Your task to perform on an android device: Open privacy settings Image 0: 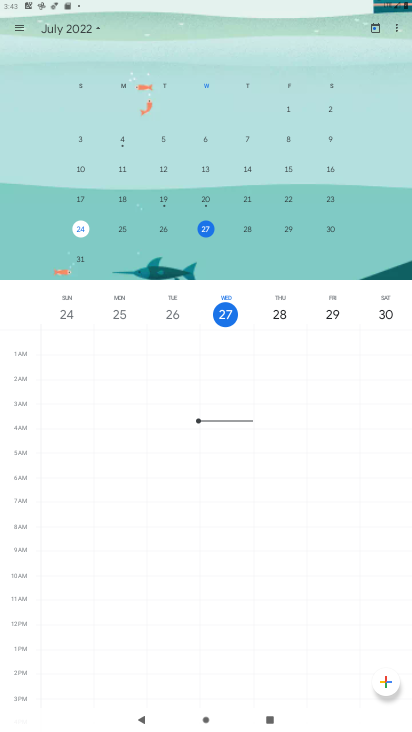
Step 0: press home button
Your task to perform on an android device: Open privacy settings Image 1: 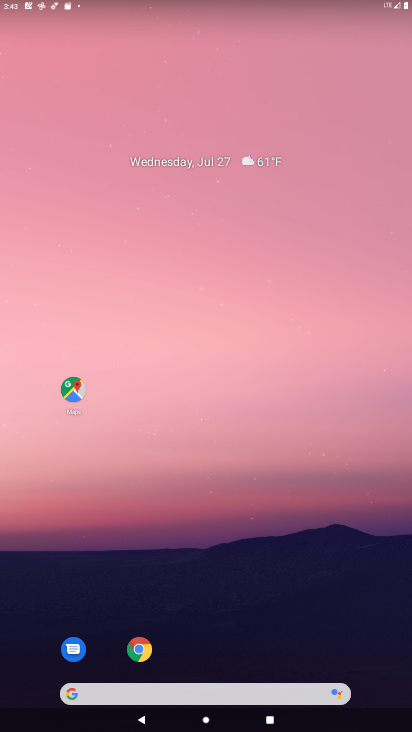
Step 1: drag from (203, 648) to (179, 269)
Your task to perform on an android device: Open privacy settings Image 2: 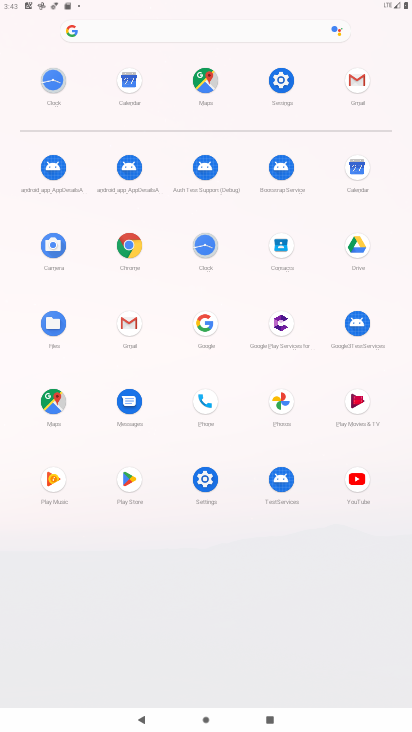
Step 2: click (199, 479)
Your task to perform on an android device: Open privacy settings Image 3: 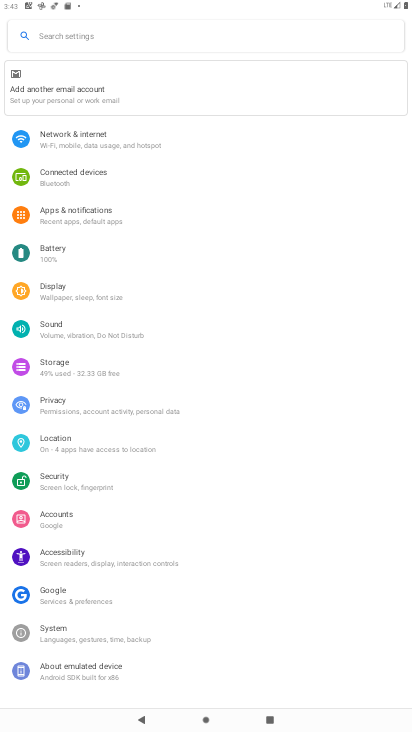
Step 3: click (61, 410)
Your task to perform on an android device: Open privacy settings Image 4: 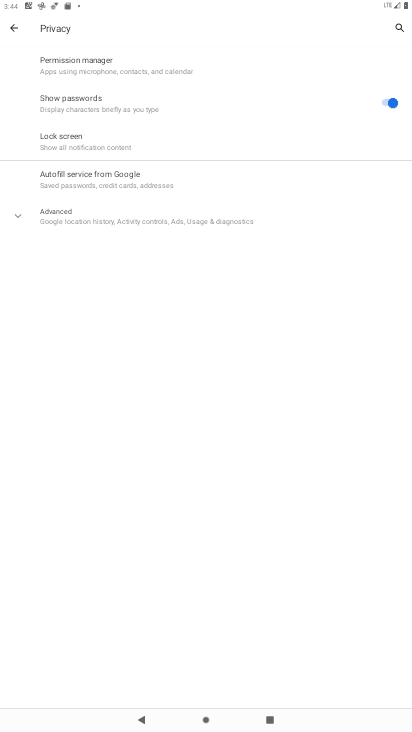
Step 4: task complete